Your task to perform on an android device: delete browsing data in the chrome app Image 0: 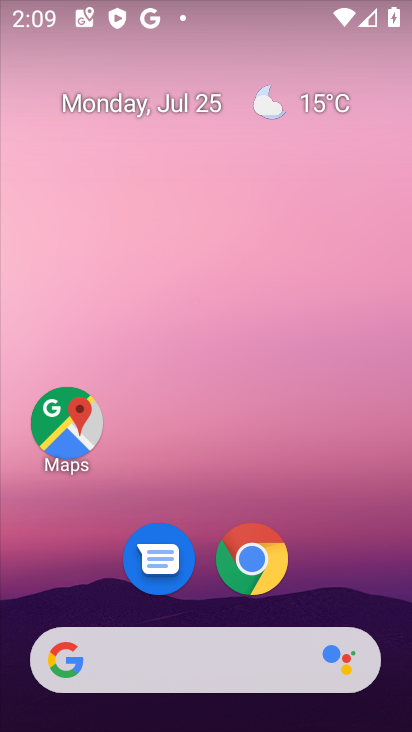
Step 0: click (246, 559)
Your task to perform on an android device: delete browsing data in the chrome app Image 1: 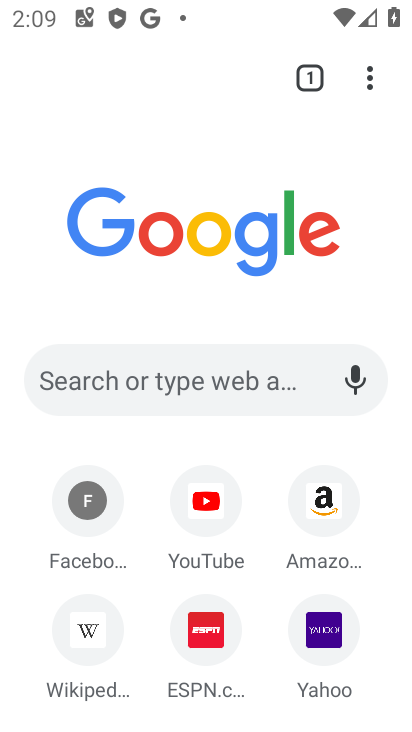
Step 1: task complete